Your task to perform on an android device: find photos in the google photos app Image 0: 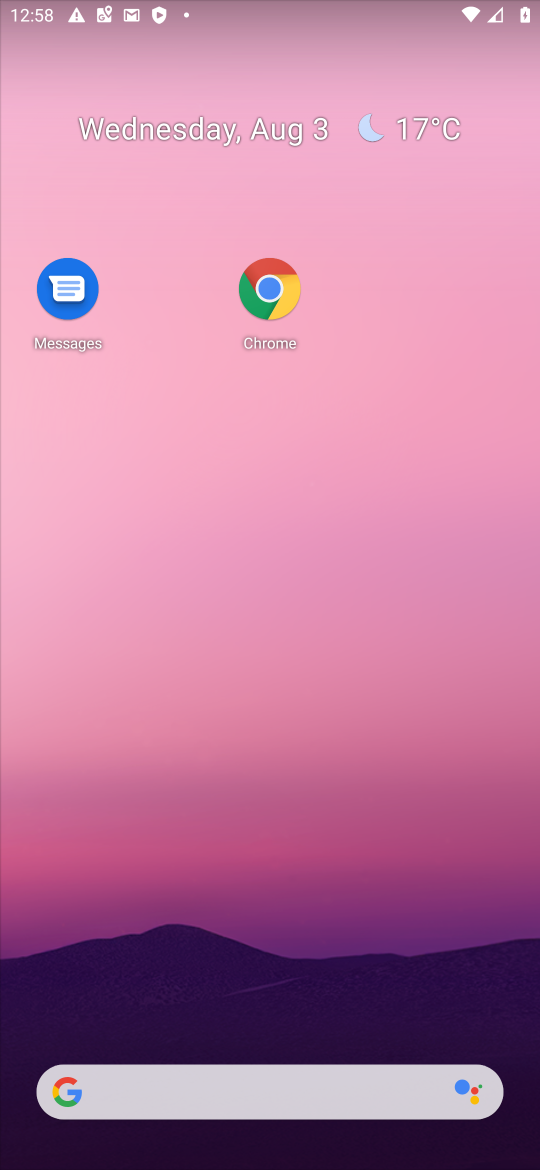
Step 0: drag from (358, 1045) to (352, 532)
Your task to perform on an android device: find photos in the google photos app Image 1: 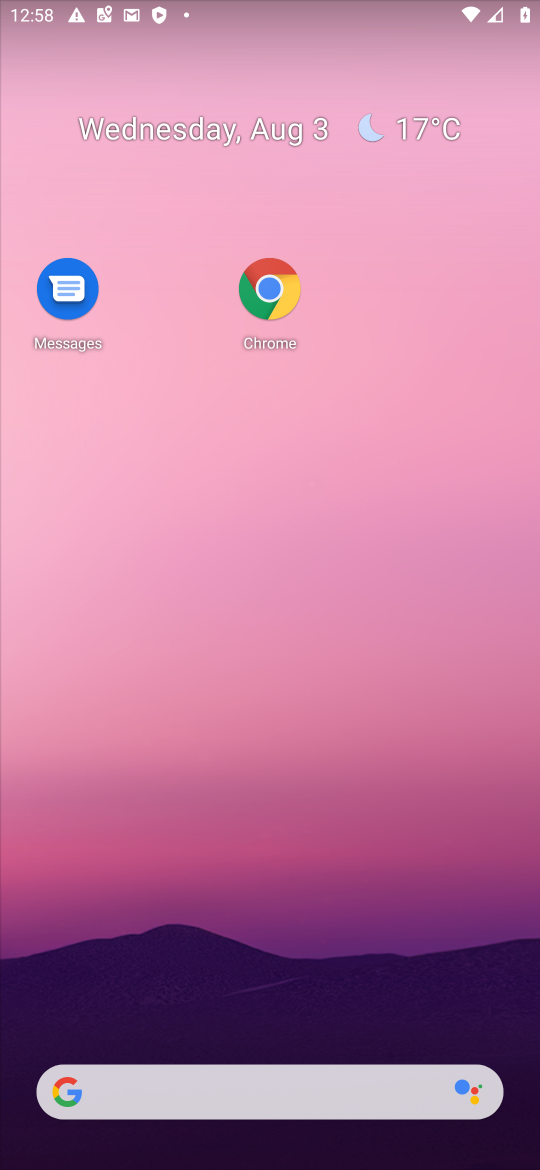
Step 1: drag from (366, 1057) to (372, 300)
Your task to perform on an android device: find photos in the google photos app Image 2: 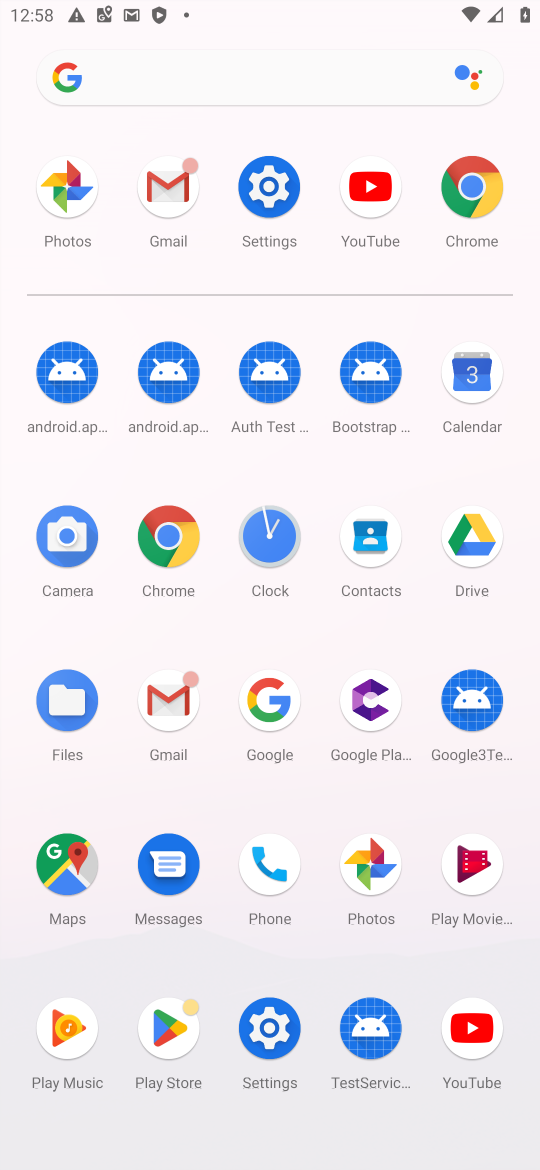
Step 2: click (56, 182)
Your task to perform on an android device: find photos in the google photos app Image 3: 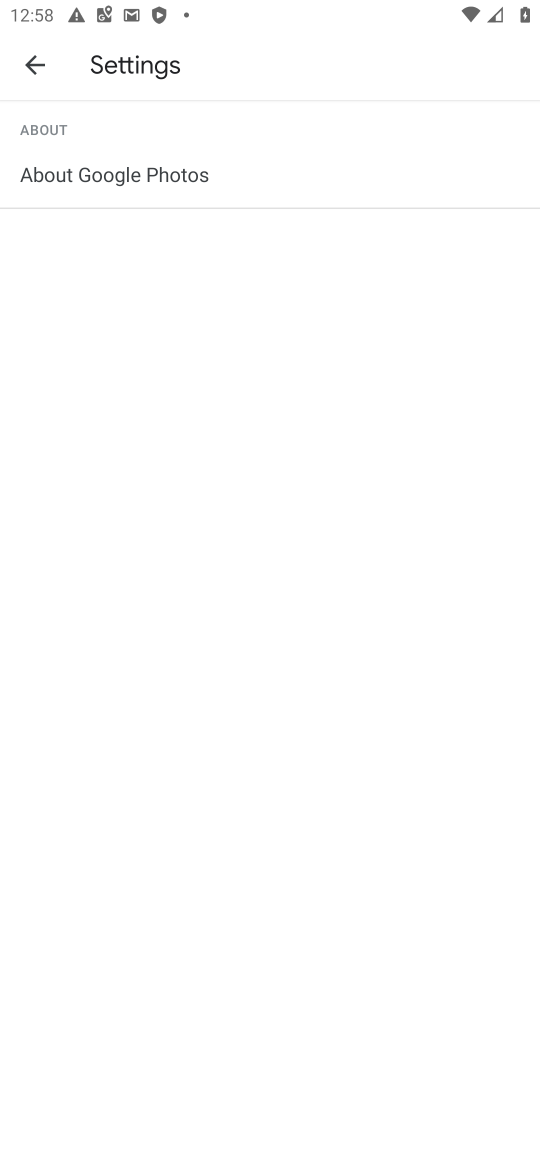
Step 3: task complete